Your task to perform on an android device: stop showing notifications on the lock screen Image 0: 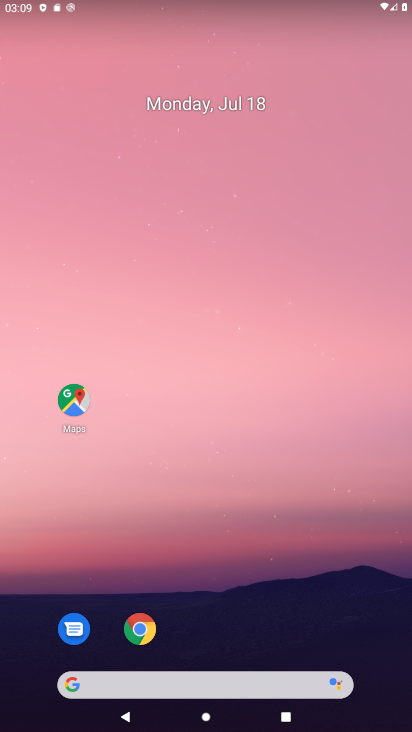
Step 0: drag from (389, 698) to (341, 129)
Your task to perform on an android device: stop showing notifications on the lock screen Image 1: 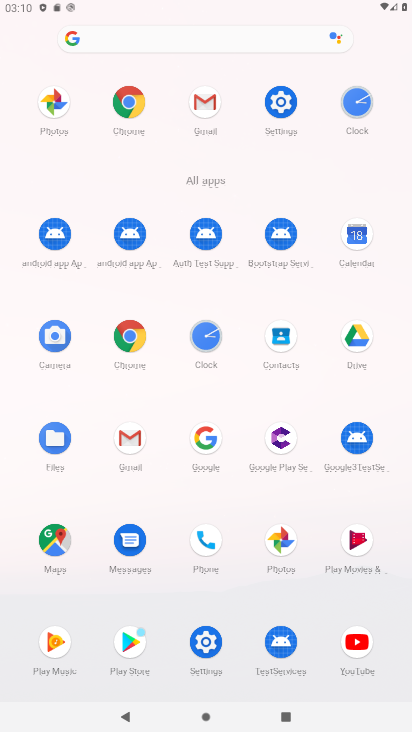
Step 1: click (270, 111)
Your task to perform on an android device: stop showing notifications on the lock screen Image 2: 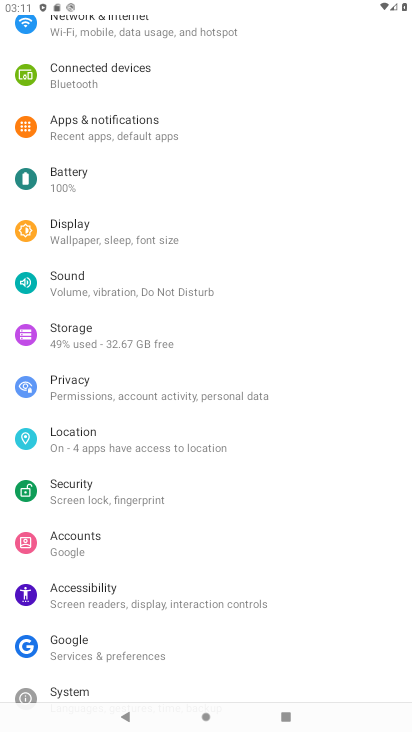
Step 2: task complete